Your task to perform on an android device: Open Chrome and go to the settings page Image 0: 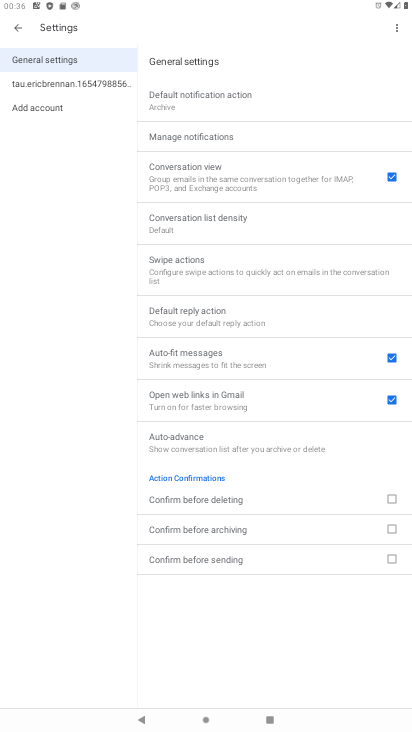
Step 0: press home button
Your task to perform on an android device: Open Chrome and go to the settings page Image 1: 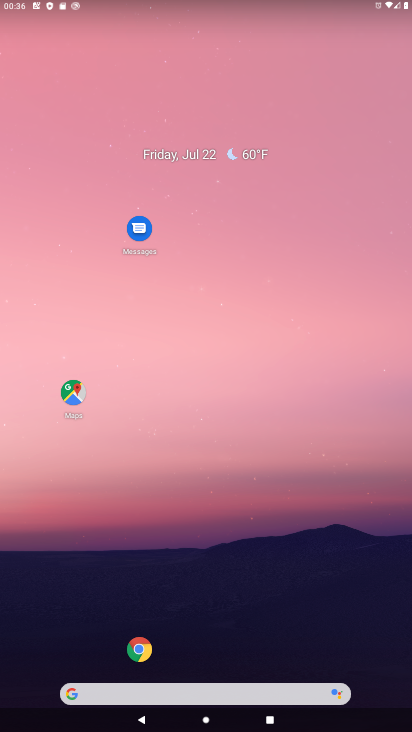
Step 1: drag from (11, 700) to (141, 37)
Your task to perform on an android device: Open Chrome and go to the settings page Image 2: 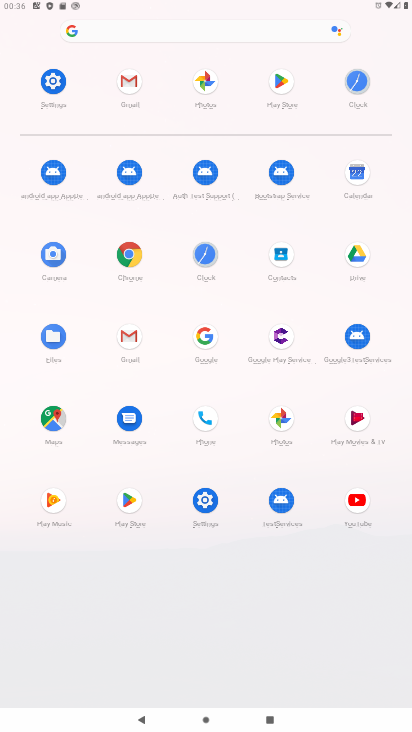
Step 2: click (126, 257)
Your task to perform on an android device: Open Chrome and go to the settings page Image 3: 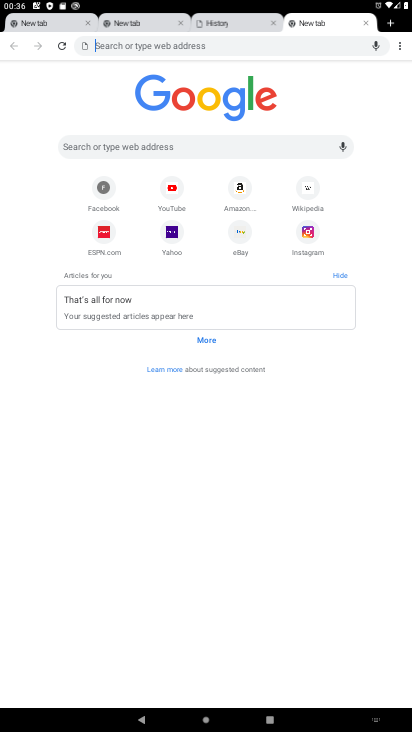
Step 3: click (400, 42)
Your task to perform on an android device: Open Chrome and go to the settings page Image 4: 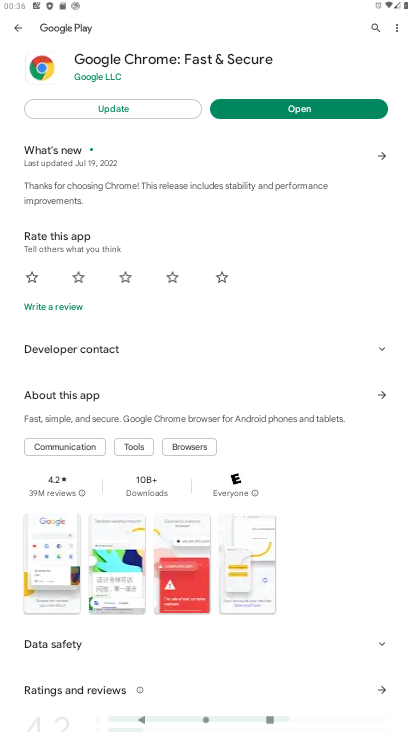
Step 4: click (12, 27)
Your task to perform on an android device: Open Chrome and go to the settings page Image 5: 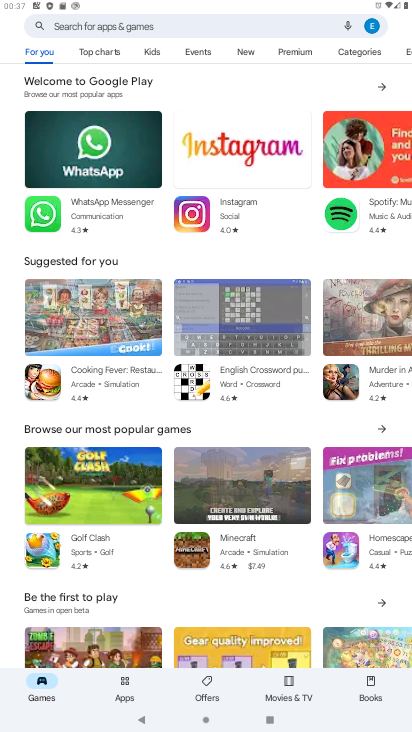
Step 5: task complete